Your task to perform on an android device: Turn on the flashlight Image 0: 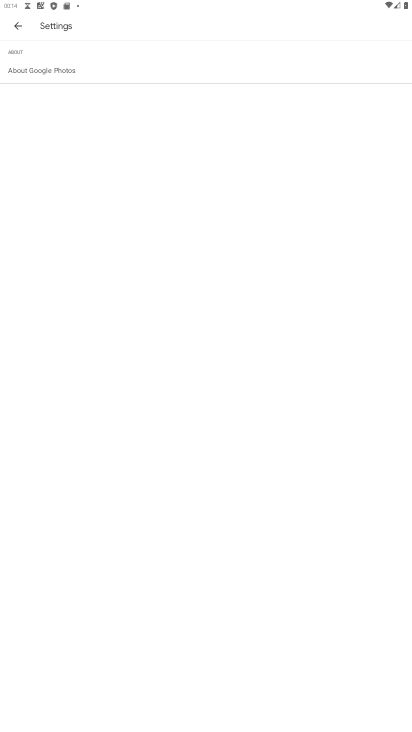
Step 0: press home button
Your task to perform on an android device: Turn on the flashlight Image 1: 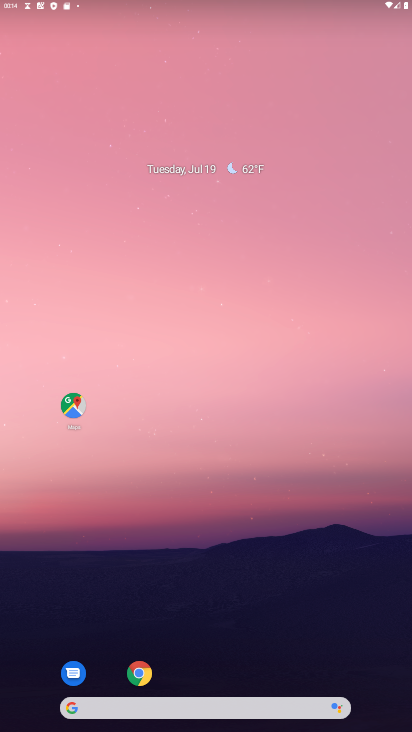
Step 1: drag from (216, 636) to (212, 317)
Your task to perform on an android device: Turn on the flashlight Image 2: 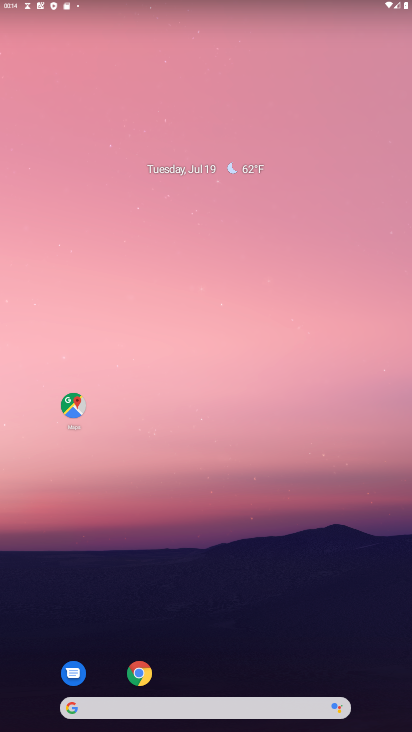
Step 2: drag from (142, 713) to (215, 268)
Your task to perform on an android device: Turn on the flashlight Image 3: 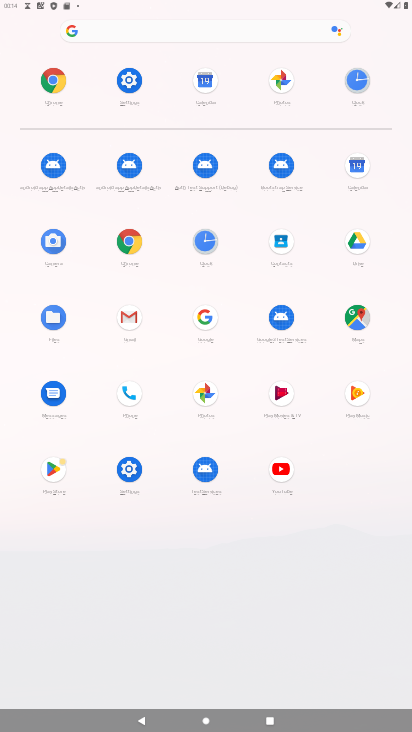
Step 3: click (129, 80)
Your task to perform on an android device: Turn on the flashlight Image 4: 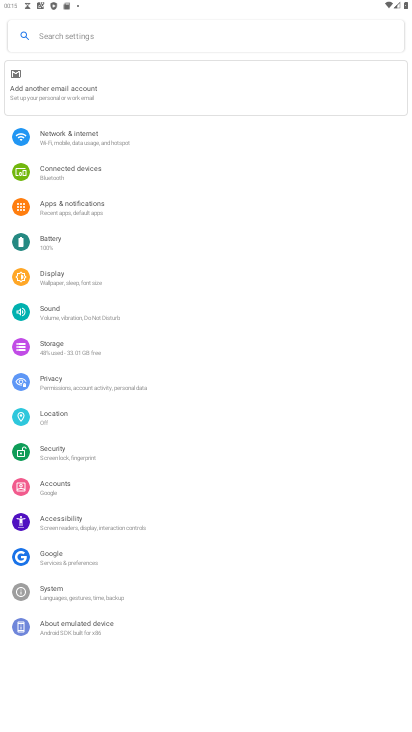
Step 4: task complete